Your task to perform on an android device: move a message to another label in the gmail app Image 0: 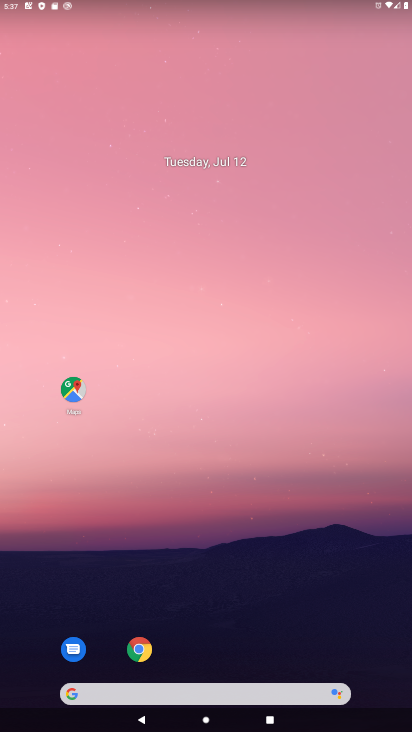
Step 0: drag from (247, 689) to (183, 146)
Your task to perform on an android device: move a message to another label in the gmail app Image 1: 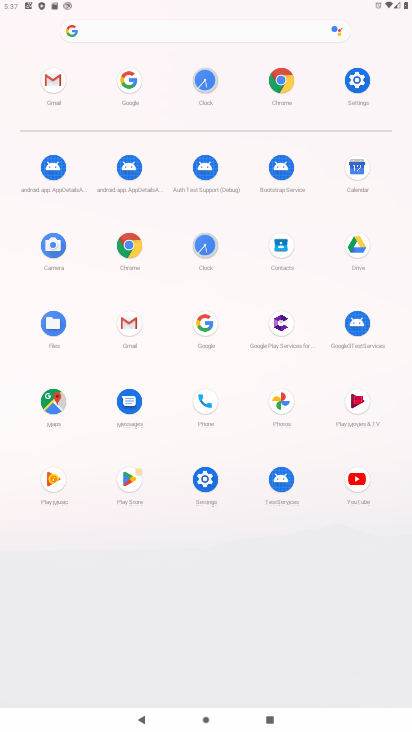
Step 1: click (53, 80)
Your task to perform on an android device: move a message to another label in the gmail app Image 2: 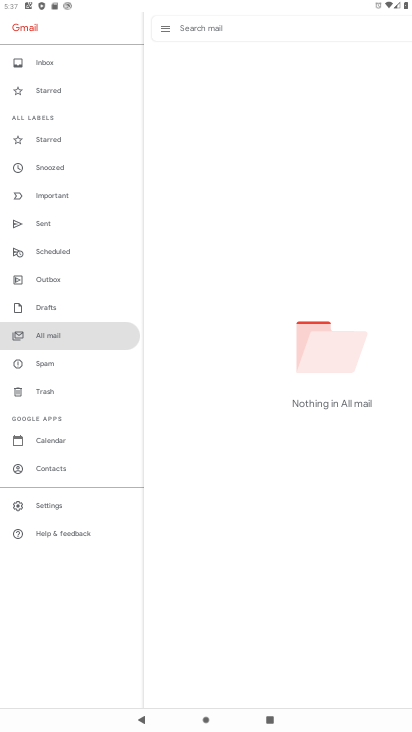
Step 2: click (47, 64)
Your task to perform on an android device: move a message to another label in the gmail app Image 3: 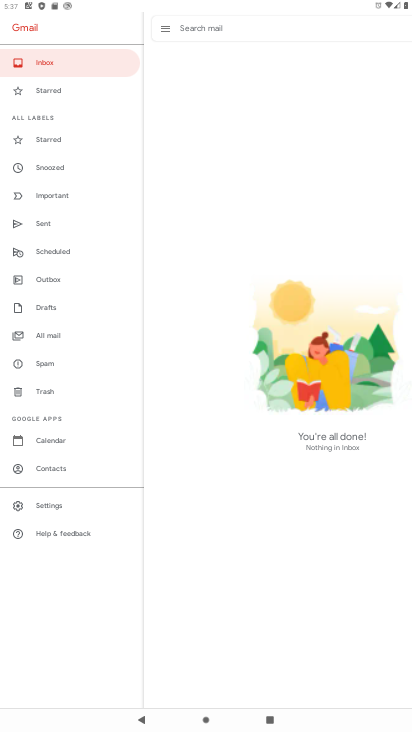
Step 3: click (48, 338)
Your task to perform on an android device: move a message to another label in the gmail app Image 4: 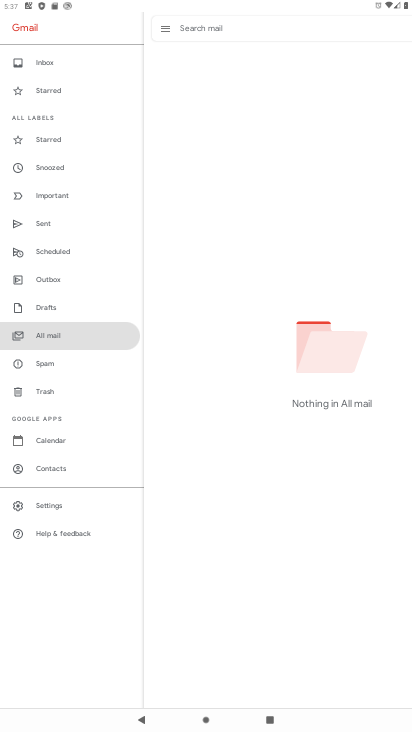
Step 4: click (41, 306)
Your task to perform on an android device: move a message to another label in the gmail app Image 5: 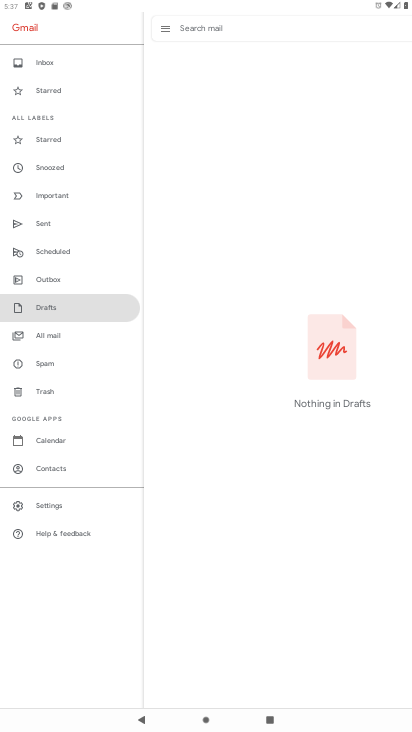
Step 5: click (41, 65)
Your task to perform on an android device: move a message to another label in the gmail app Image 6: 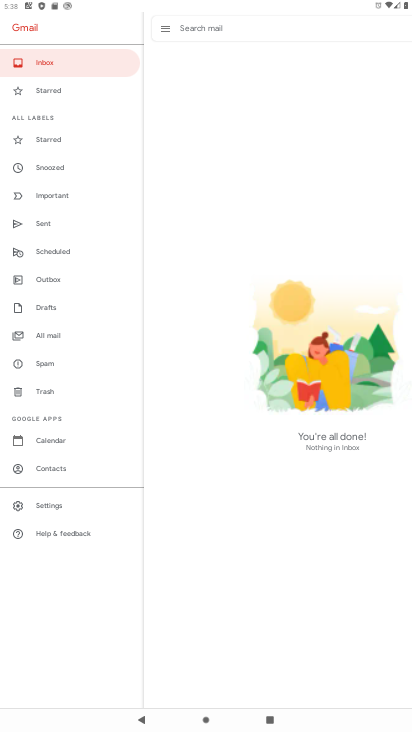
Step 6: task complete